Your task to perform on an android device: turn notification dots on Image 0: 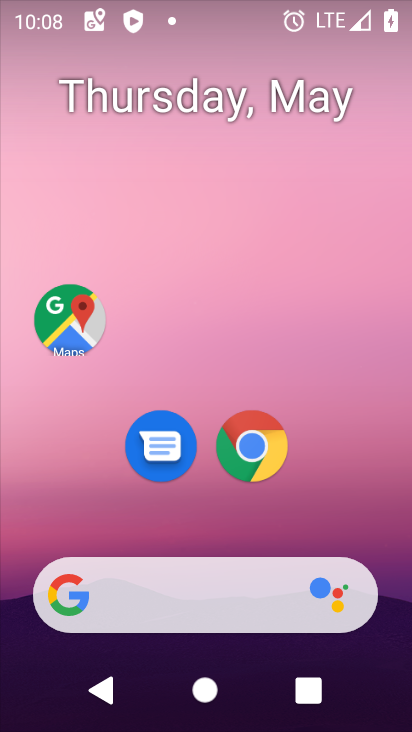
Step 0: drag from (405, 634) to (321, 41)
Your task to perform on an android device: turn notification dots on Image 1: 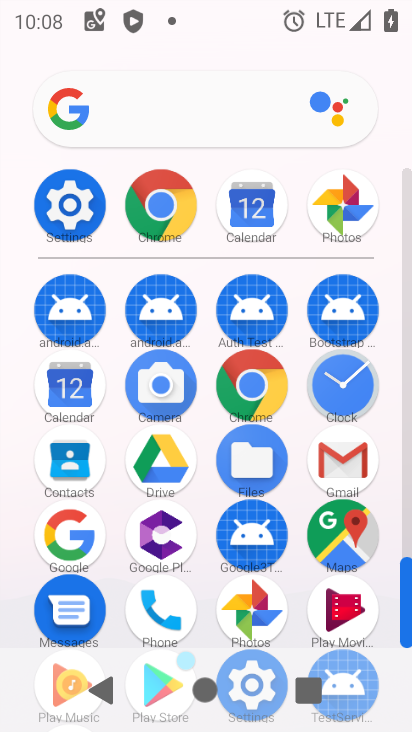
Step 1: drag from (406, 548) to (386, 421)
Your task to perform on an android device: turn notification dots on Image 2: 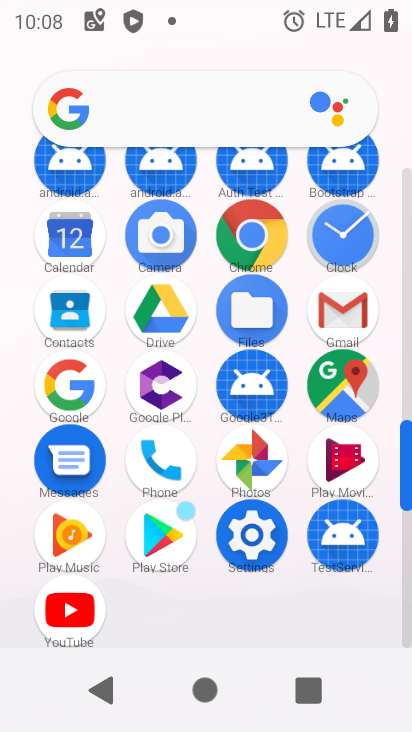
Step 2: click (249, 536)
Your task to perform on an android device: turn notification dots on Image 3: 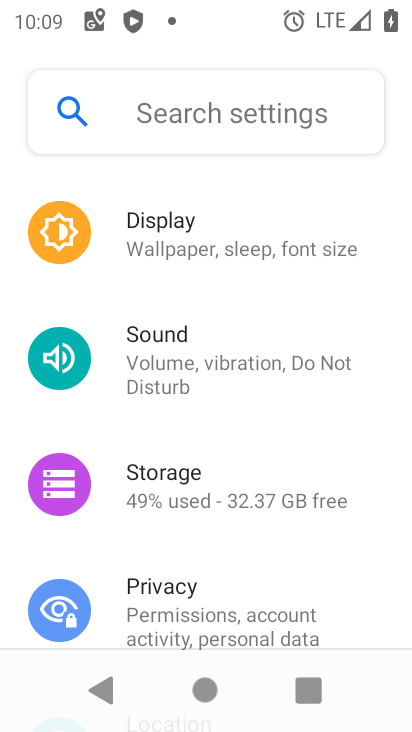
Step 3: drag from (240, 573) to (275, 577)
Your task to perform on an android device: turn notification dots on Image 4: 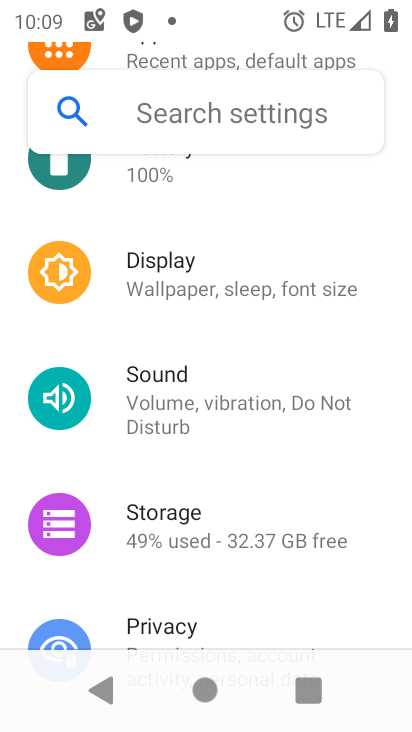
Step 4: drag from (276, 254) to (270, 563)
Your task to perform on an android device: turn notification dots on Image 5: 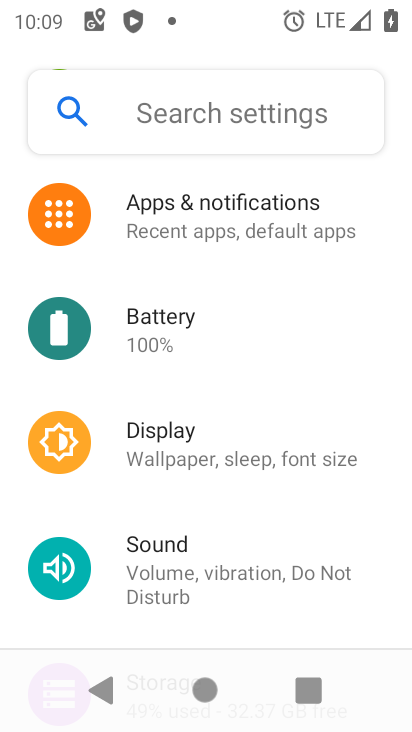
Step 5: drag from (290, 210) to (293, 530)
Your task to perform on an android device: turn notification dots on Image 6: 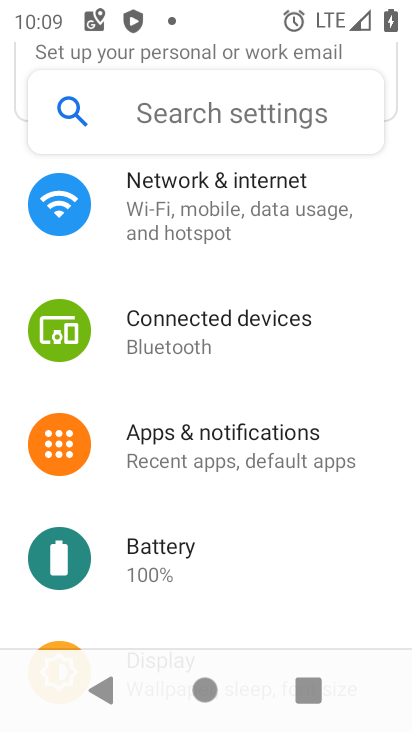
Step 6: click (200, 466)
Your task to perform on an android device: turn notification dots on Image 7: 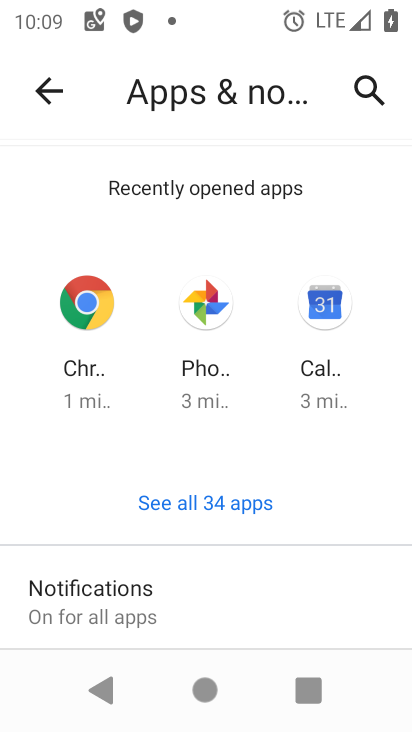
Step 7: drag from (226, 584) to (213, 299)
Your task to perform on an android device: turn notification dots on Image 8: 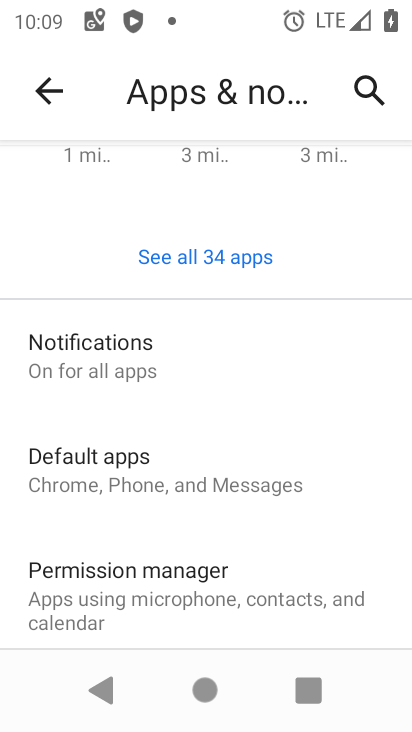
Step 8: click (92, 364)
Your task to perform on an android device: turn notification dots on Image 9: 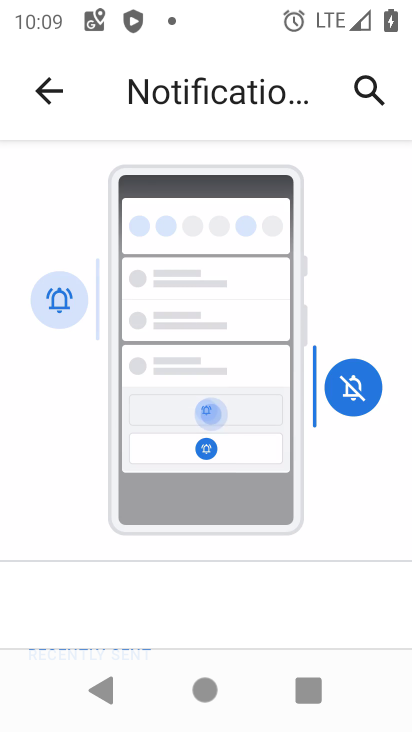
Step 9: drag from (197, 600) to (208, 152)
Your task to perform on an android device: turn notification dots on Image 10: 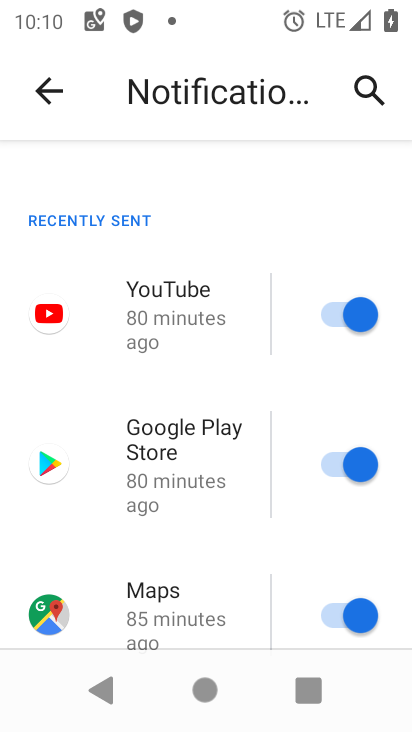
Step 10: drag from (247, 567) to (212, 188)
Your task to perform on an android device: turn notification dots on Image 11: 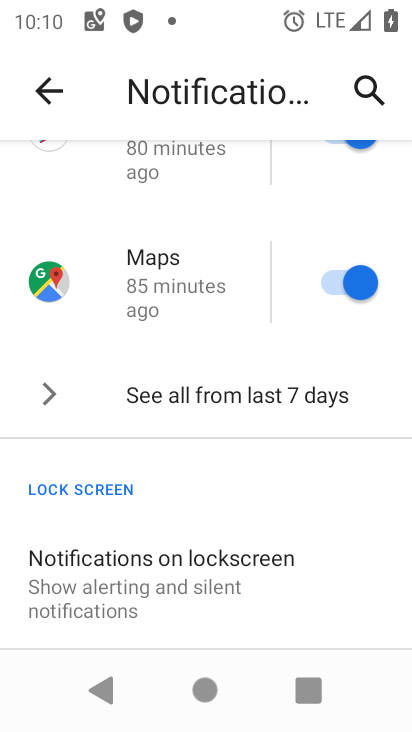
Step 11: drag from (222, 502) to (215, 150)
Your task to perform on an android device: turn notification dots on Image 12: 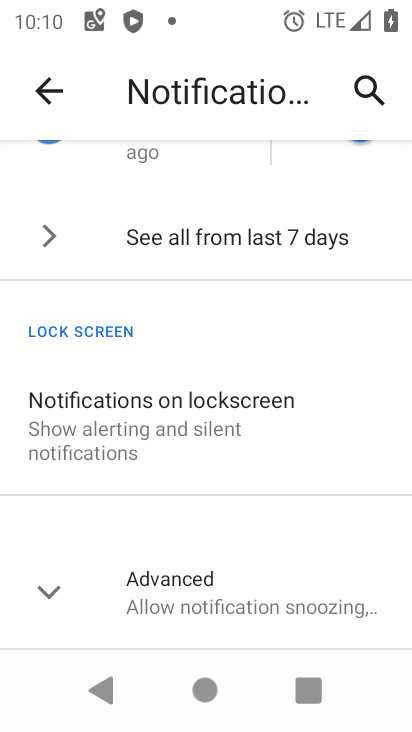
Step 12: click (42, 591)
Your task to perform on an android device: turn notification dots on Image 13: 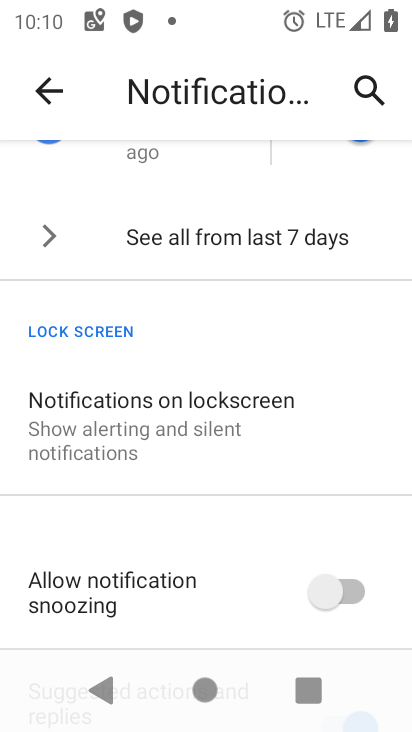
Step 13: task complete